Your task to perform on an android device: Is it going to rain today? Image 0: 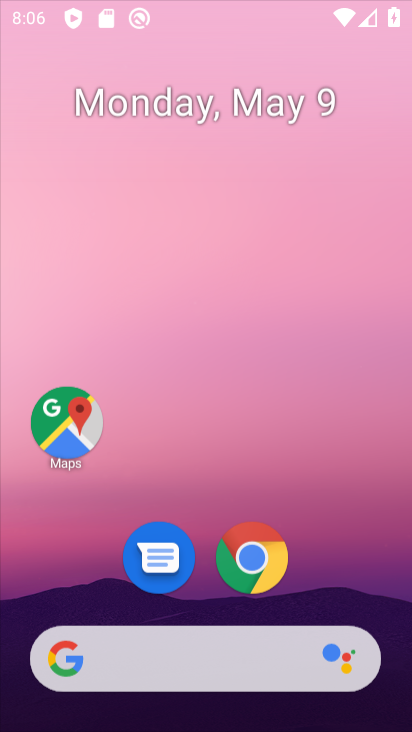
Step 0: click (337, 78)
Your task to perform on an android device: Is it going to rain today? Image 1: 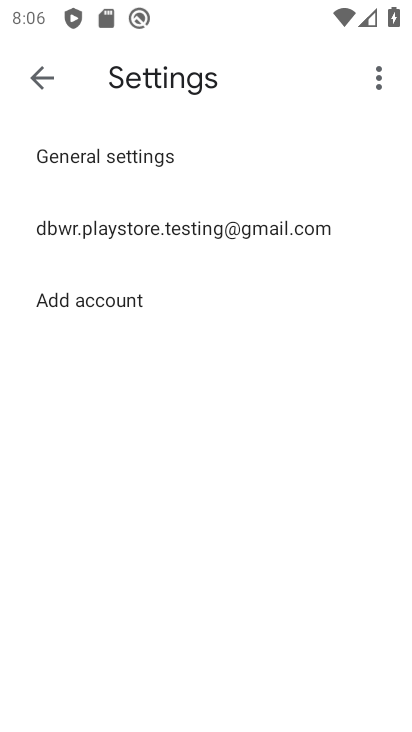
Step 1: click (337, 78)
Your task to perform on an android device: Is it going to rain today? Image 2: 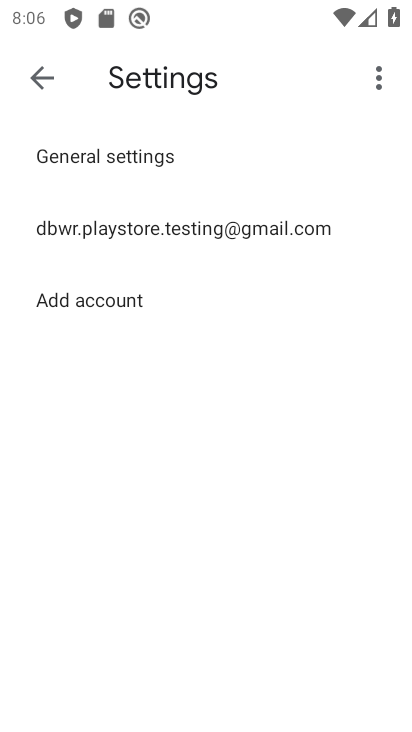
Step 2: press home button
Your task to perform on an android device: Is it going to rain today? Image 3: 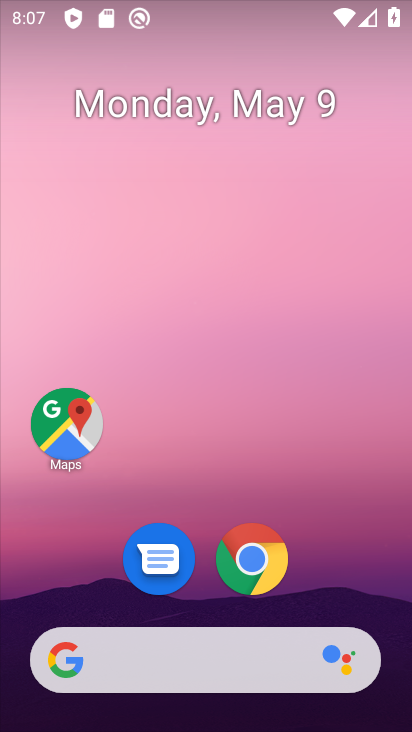
Step 3: drag from (6, 240) to (387, 404)
Your task to perform on an android device: Is it going to rain today? Image 4: 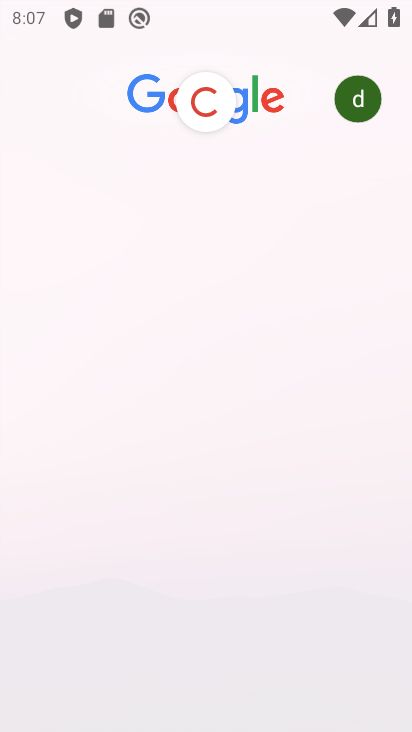
Step 4: drag from (369, 265) to (343, 287)
Your task to perform on an android device: Is it going to rain today? Image 5: 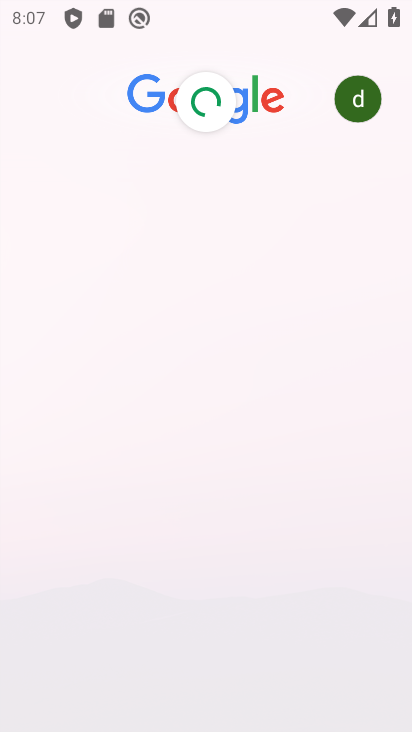
Step 5: click (386, 388)
Your task to perform on an android device: Is it going to rain today? Image 6: 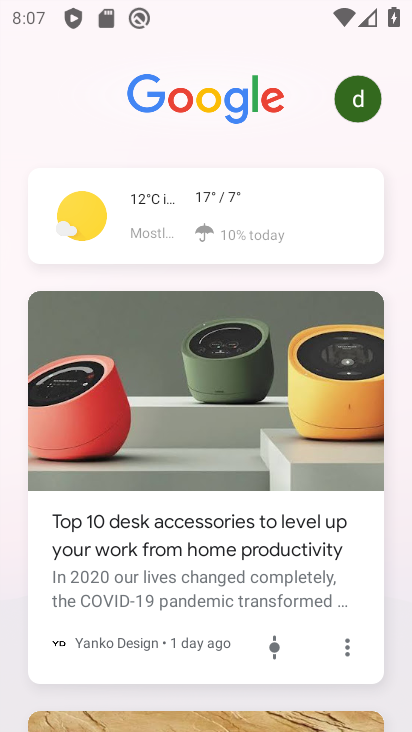
Step 6: click (201, 217)
Your task to perform on an android device: Is it going to rain today? Image 7: 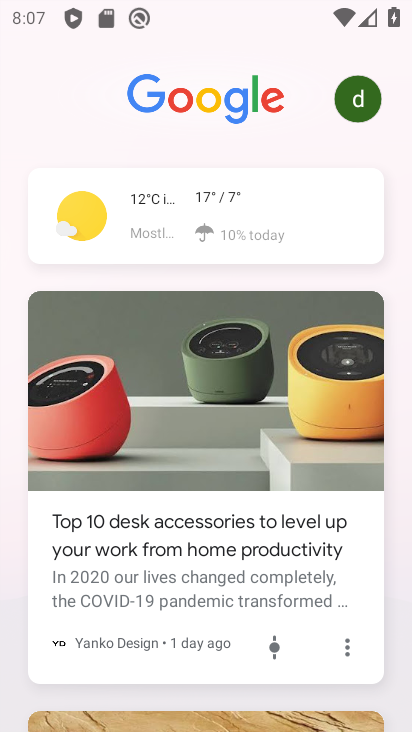
Step 7: click (203, 218)
Your task to perform on an android device: Is it going to rain today? Image 8: 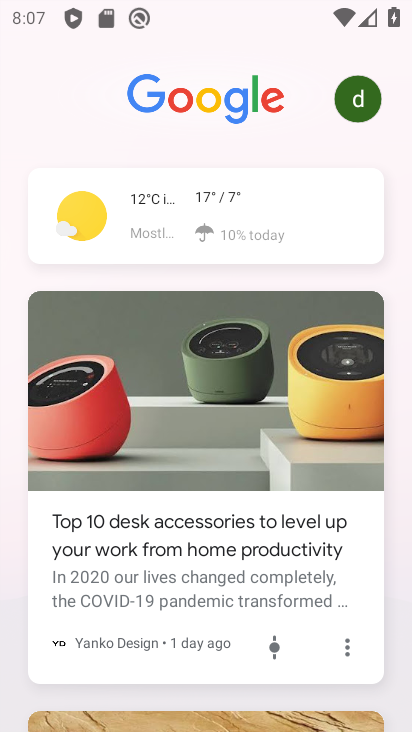
Step 8: click (204, 219)
Your task to perform on an android device: Is it going to rain today? Image 9: 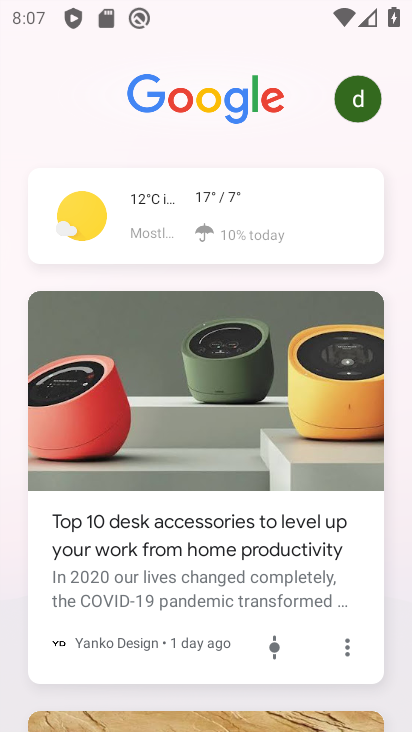
Step 9: click (204, 219)
Your task to perform on an android device: Is it going to rain today? Image 10: 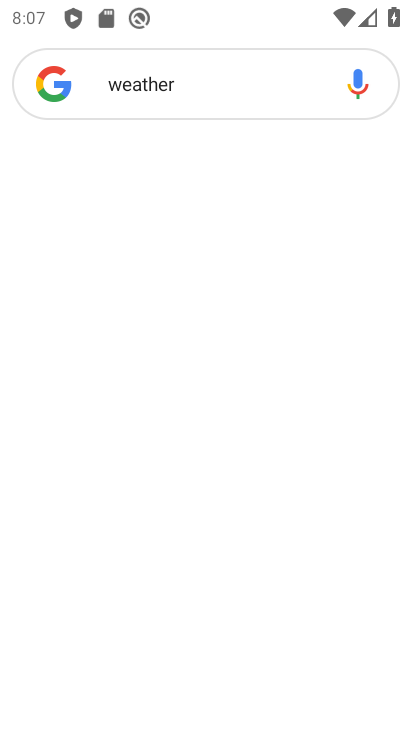
Step 10: click (204, 219)
Your task to perform on an android device: Is it going to rain today? Image 11: 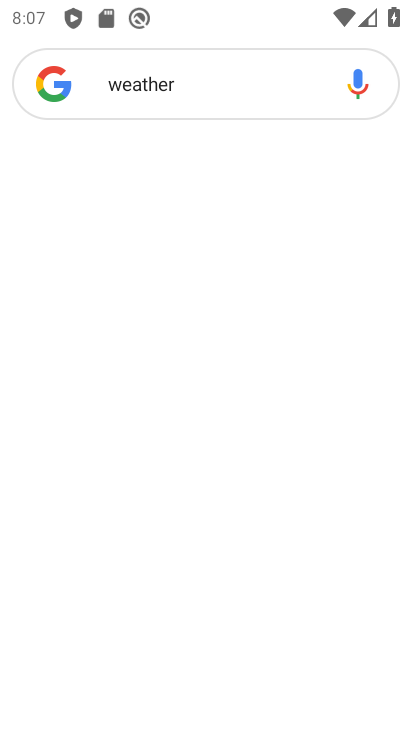
Step 11: click (204, 219)
Your task to perform on an android device: Is it going to rain today? Image 12: 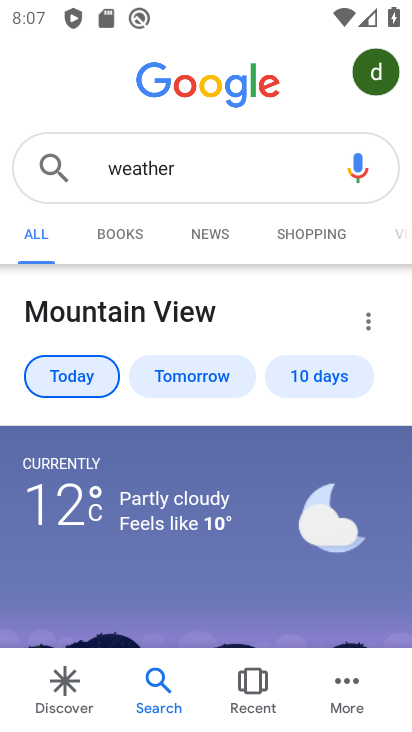
Step 12: click (199, 386)
Your task to perform on an android device: Is it going to rain today? Image 13: 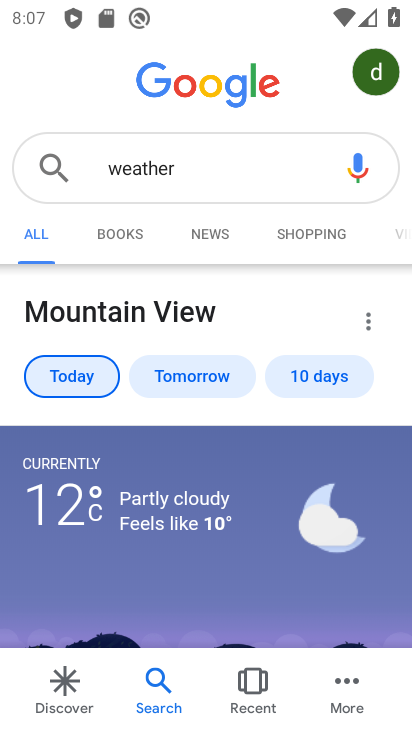
Step 13: click (198, 383)
Your task to perform on an android device: Is it going to rain today? Image 14: 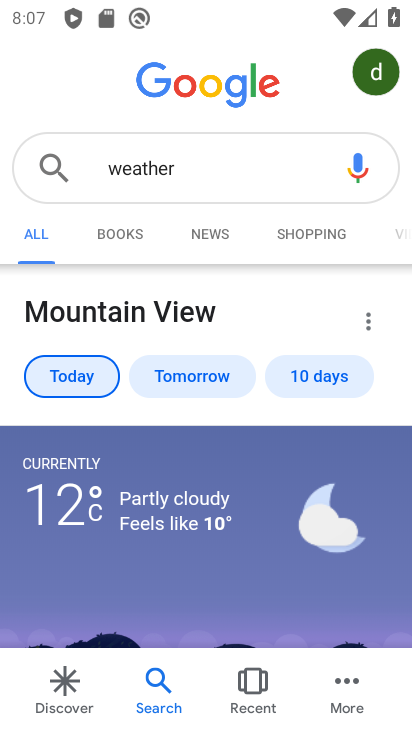
Step 14: click (198, 379)
Your task to perform on an android device: Is it going to rain today? Image 15: 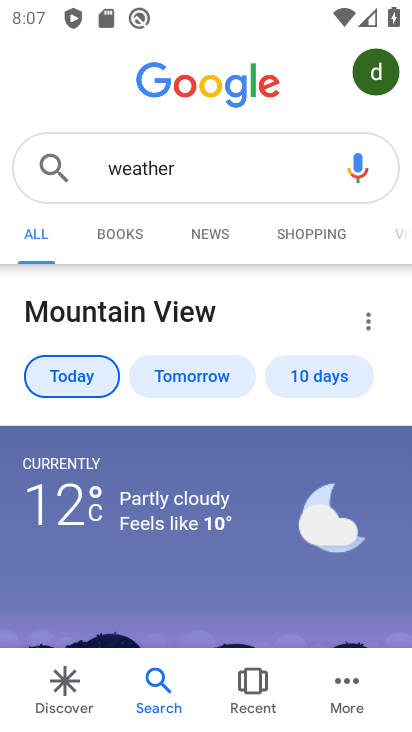
Step 15: click (198, 379)
Your task to perform on an android device: Is it going to rain today? Image 16: 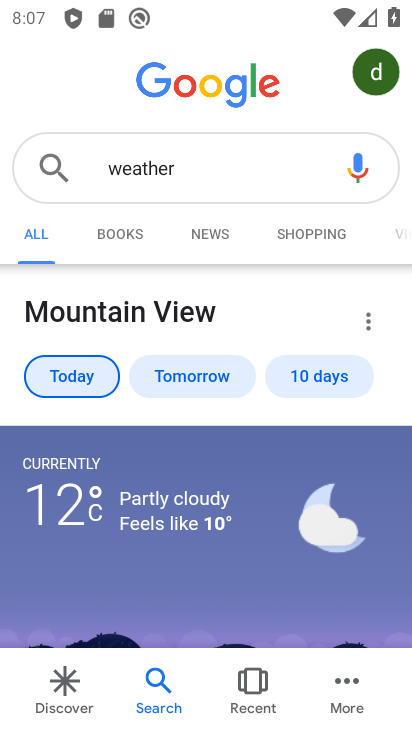
Step 16: click (199, 378)
Your task to perform on an android device: Is it going to rain today? Image 17: 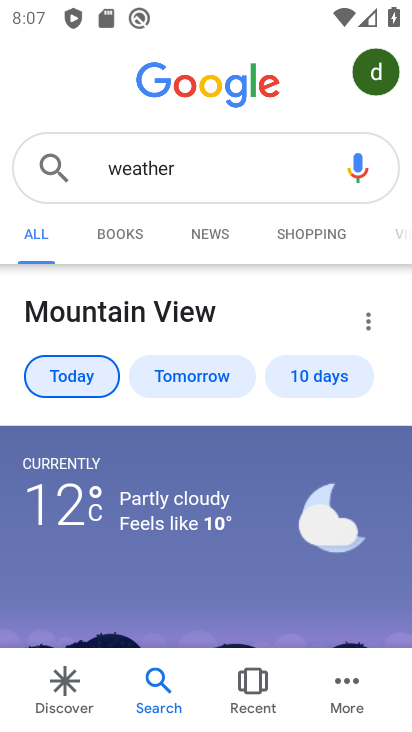
Step 17: click (200, 379)
Your task to perform on an android device: Is it going to rain today? Image 18: 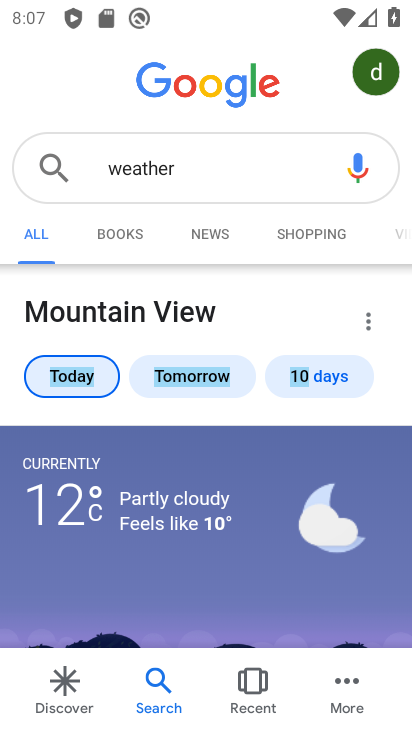
Step 18: click (203, 380)
Your task to perform on an android device: Is it going to rain today? Image 19: 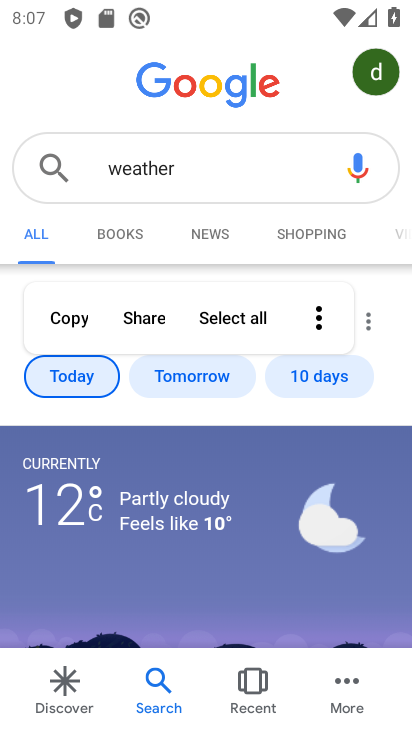
Step 19: click (205, 376)
Your task to perform on an android device: Is it going to rain today? Image 20: 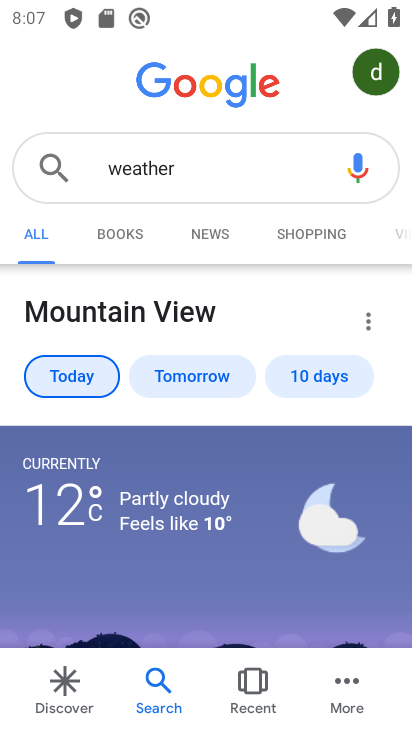
Step 20: click (200, 373)
Your task to perform on an android device: Is it going to rain today? Image 21: 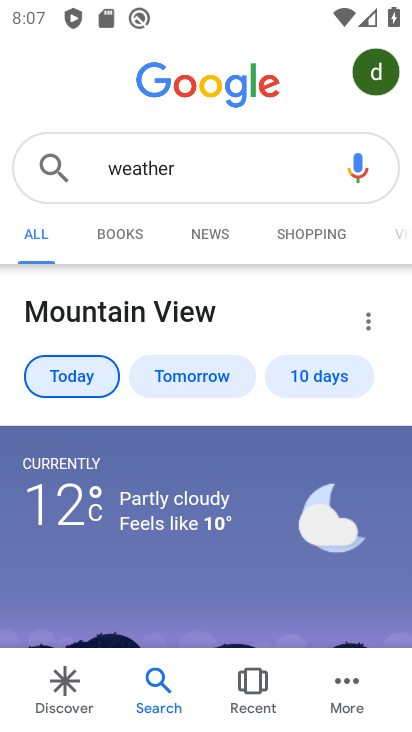
Step 21: task complete